Your task to perform on an android device: Go to display settings Image 0: 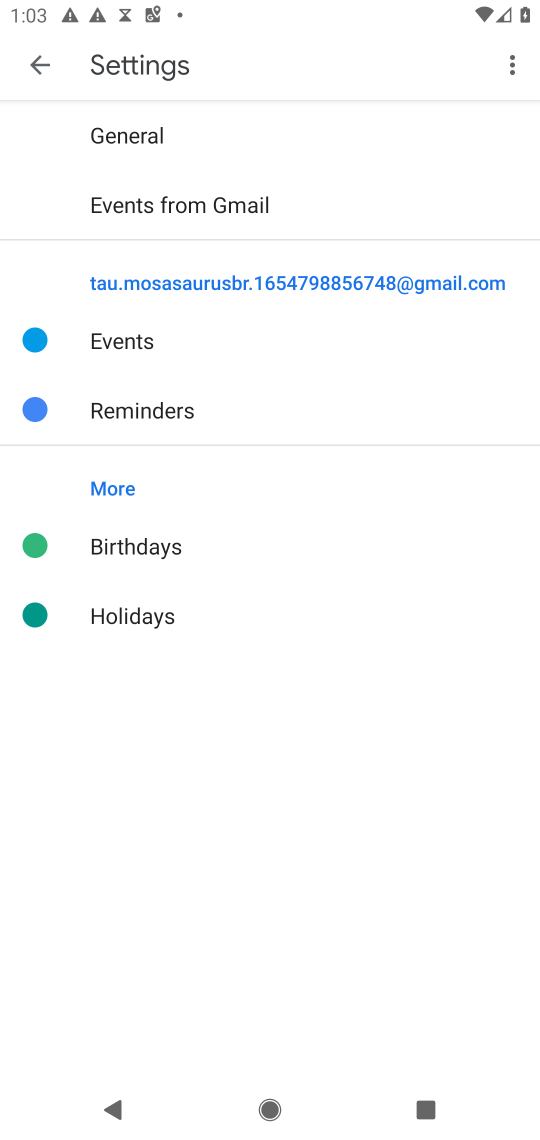
Step 0: press home button
Your task to perform on an android device: Go to display settings Image 1: 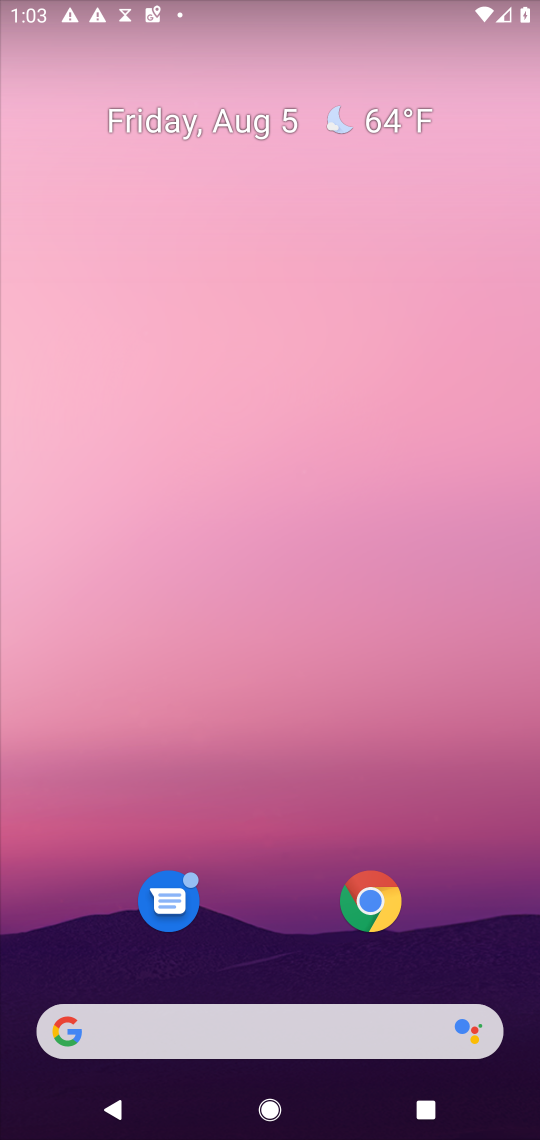
Step 1: drag from (262, 931) to (135, 293)
Your task to perform on an android device: Go to display settings Image 2: 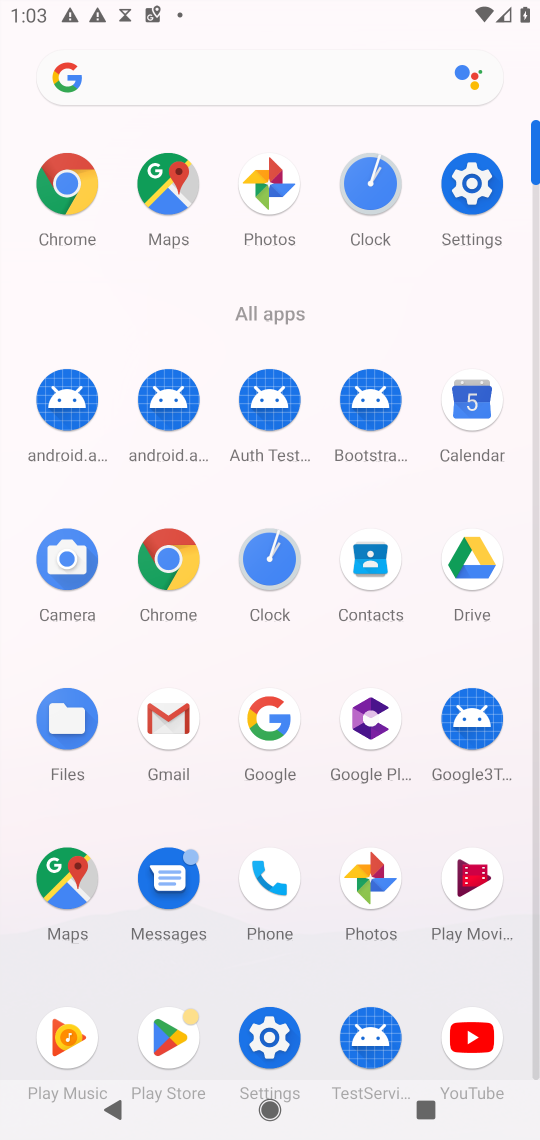
Step 2: click (275, 1030)
Your task to perform on an android device: Go to display settings Image 3: 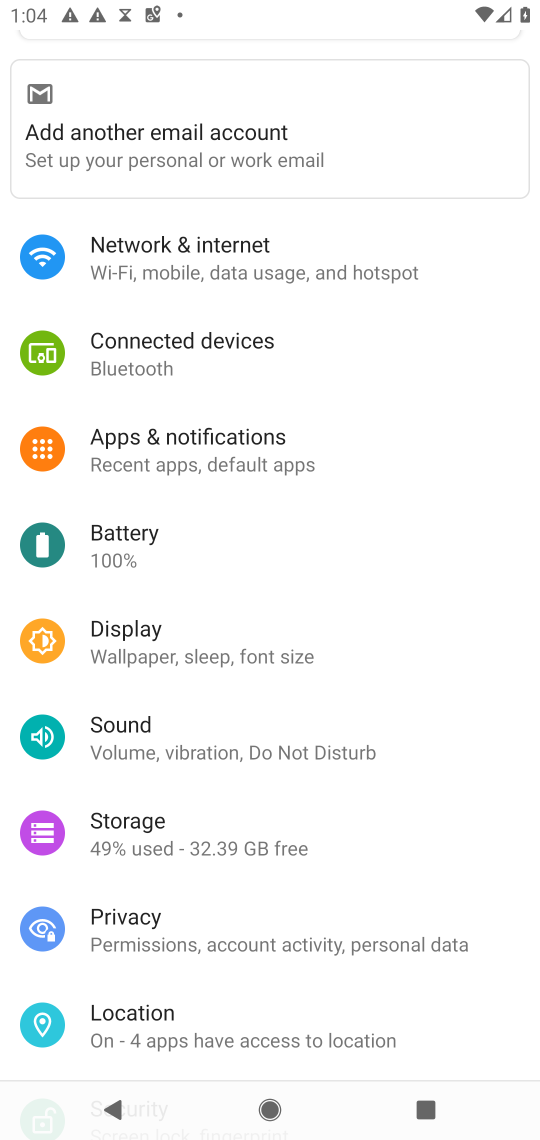
Step 3: click (157, 661)
Your task to perform on an android device: Go to display settings Image 4: 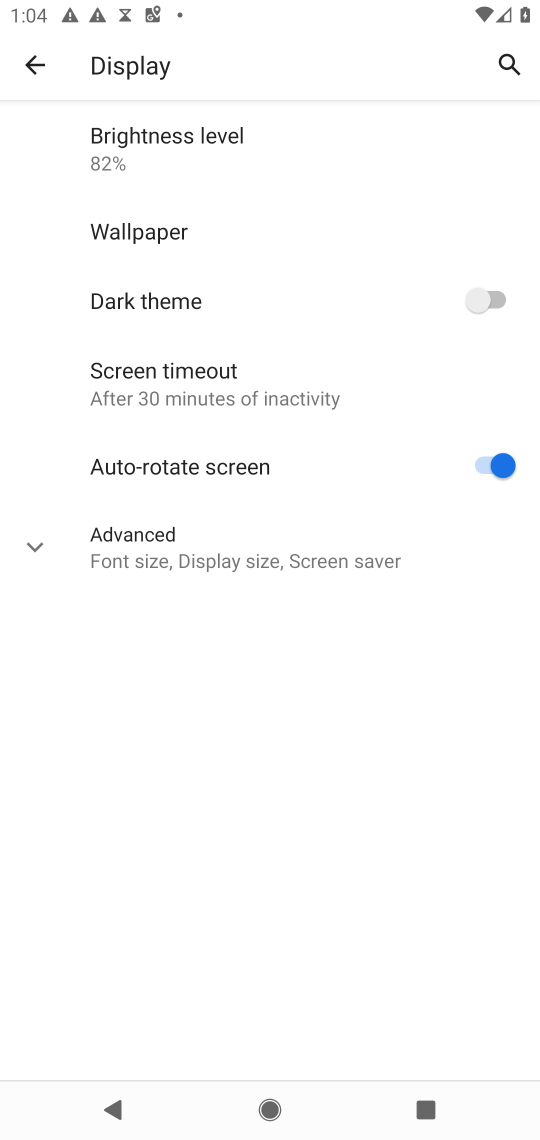
Step 4: task complete